Your task to perform on an android device: Open the calendar and show me this week's events? Image 0: 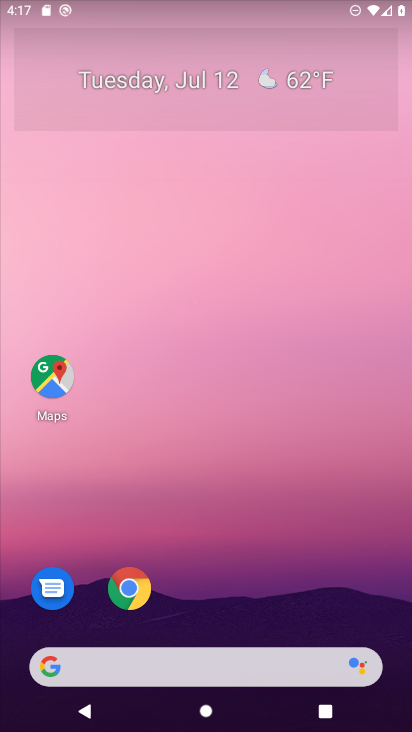
Step 0: drag from (214, 602) to (352, 4)
Your task to perform on an android device: Open the calendar and show me this week's events? Image 1: 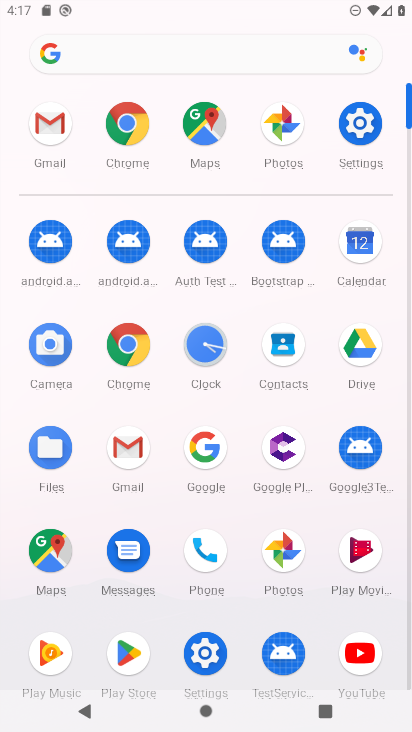
Step 1: click (360, 250)
Your task to perform on an android device: Open the calendar and show me this week's events? Image 2: 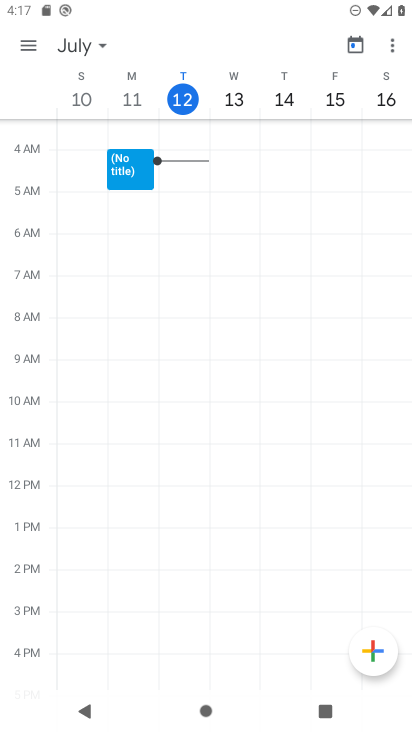
Step 2: drag from (338, 95) to (409, 125)
Your task to perform on an android device: Open the calendar and show me this week's events? Image 3: 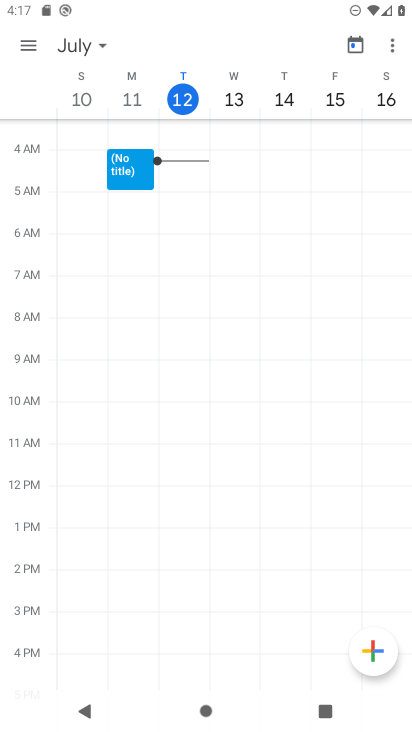
Step 3: click (27, 41)
Your task to perform on an android device: Open the calendar and show me this week's events? Image 4: 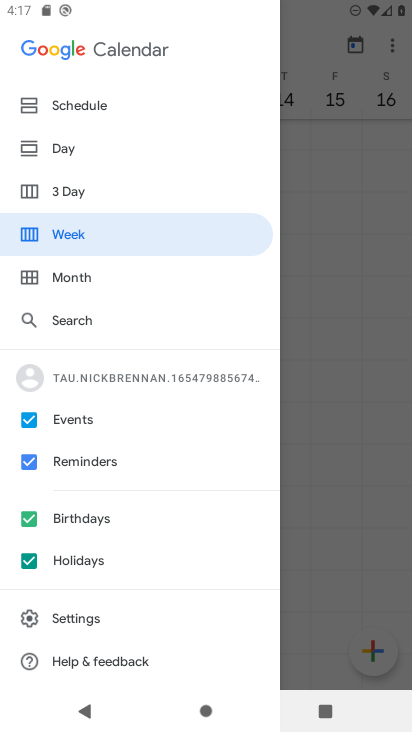
Step 4: click (97, 555)
Your task to perform on an android device: Open the calendar and show me this week's events? Image 5: 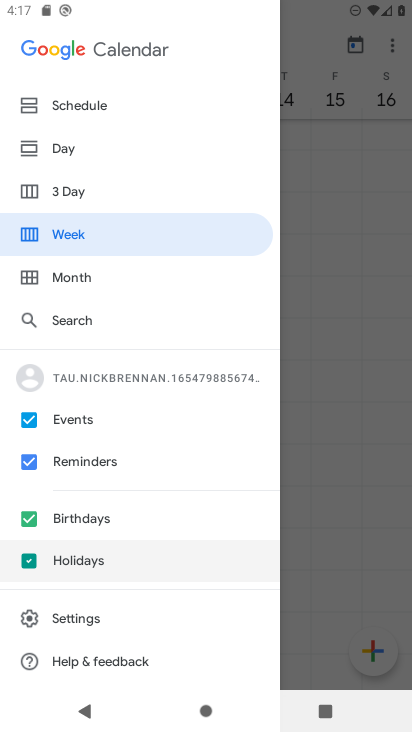
Step 5: click (91, 512)
Your task to perform on an android device: Open the calendar and show me this week's events? Image 6: 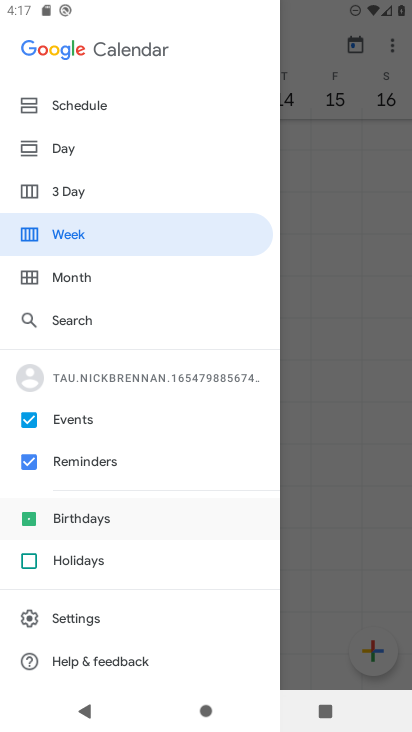
Step 6: click (84, 455)
Your task to perform on an android device: Open the calendar and show me this week's events? Image 7: 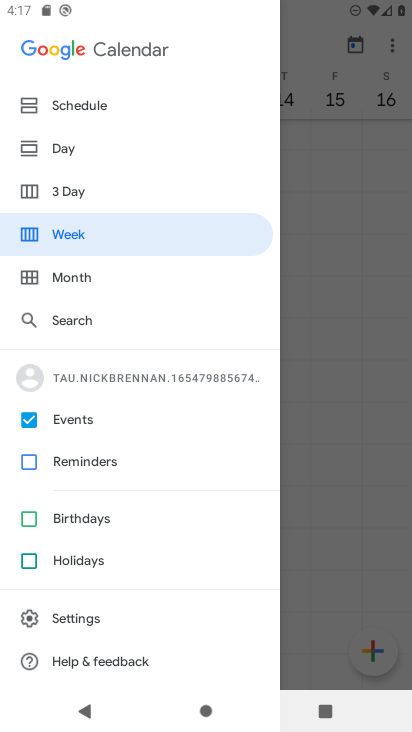
Step 7: click (361, 314)
Your task to perform on an android device: Open the calendar and show me this week's events? Image 8: 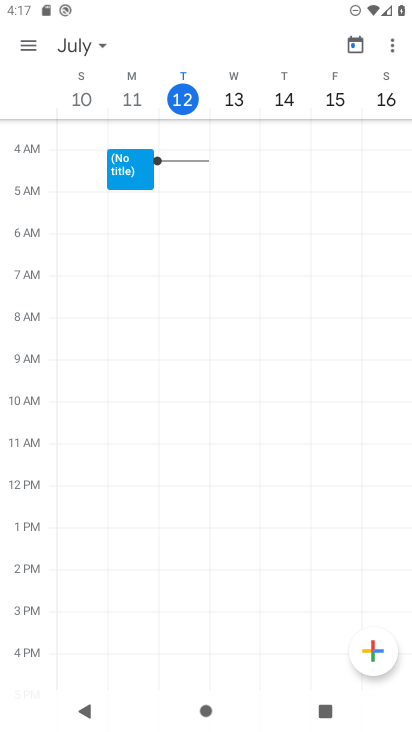
Step 8: task complete